Your task to perform on an android device: Search for logitech g933 on walmart.com, select the first entry, and add it to the cart. Image 0: 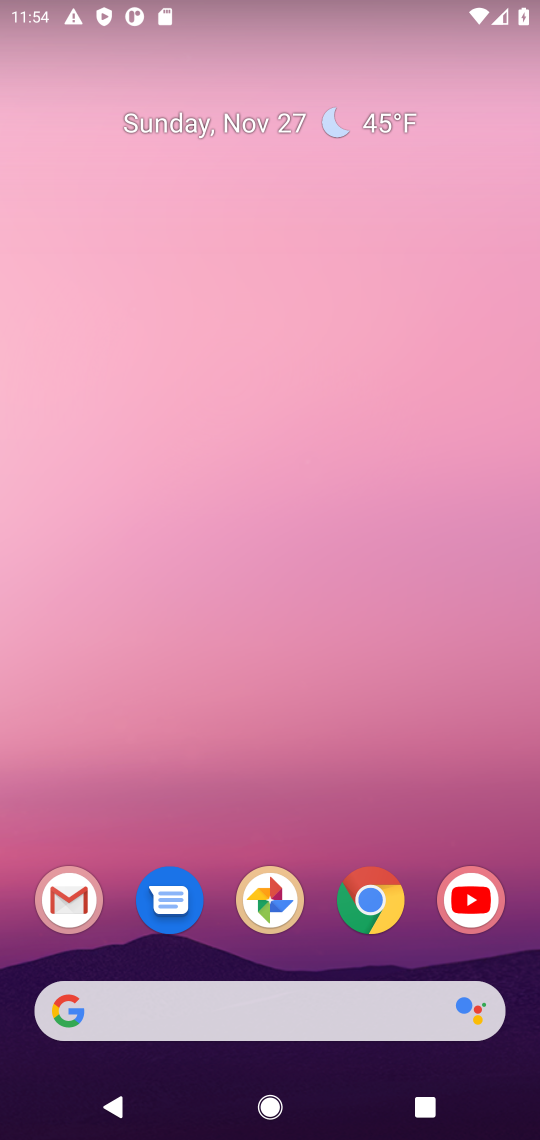
Step 0: click (377, 890)
Your task to perform on an android device: Search for logitech g933 on walmart.com, select the first entry, and add it to the cart. Image 1: 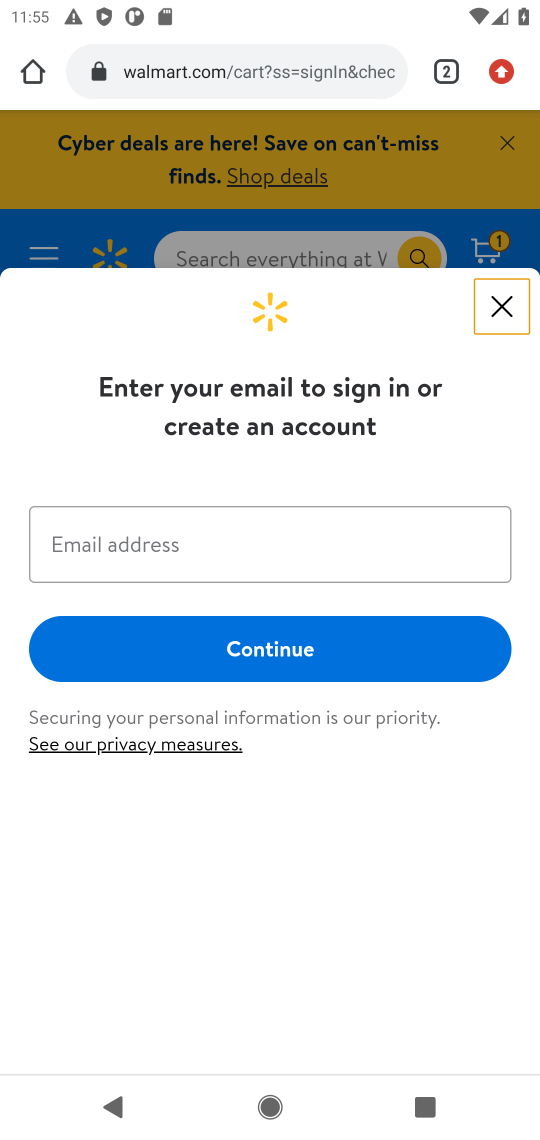
Step 1: click (501, 310)
Your task to perform on an android device: Search for logitech g933 on walmart.com, select the first entry, and add it to the cart. Image 2: 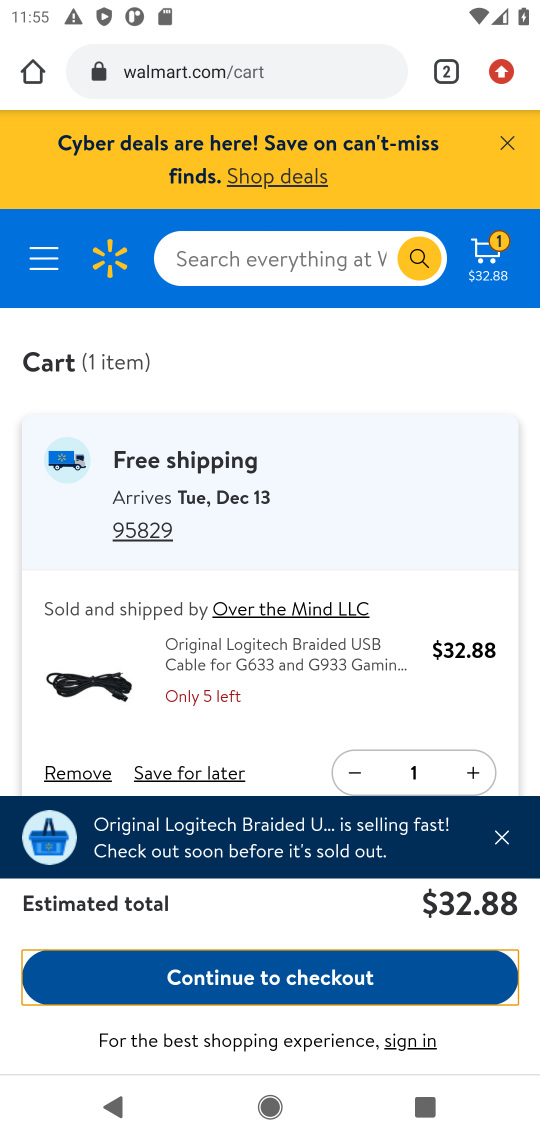
Step 2: click (308, 248)
Your task to perform on an android device: Search for logitech g933 on walmart.com, select the first entry, and add it to the cart. Image 3: 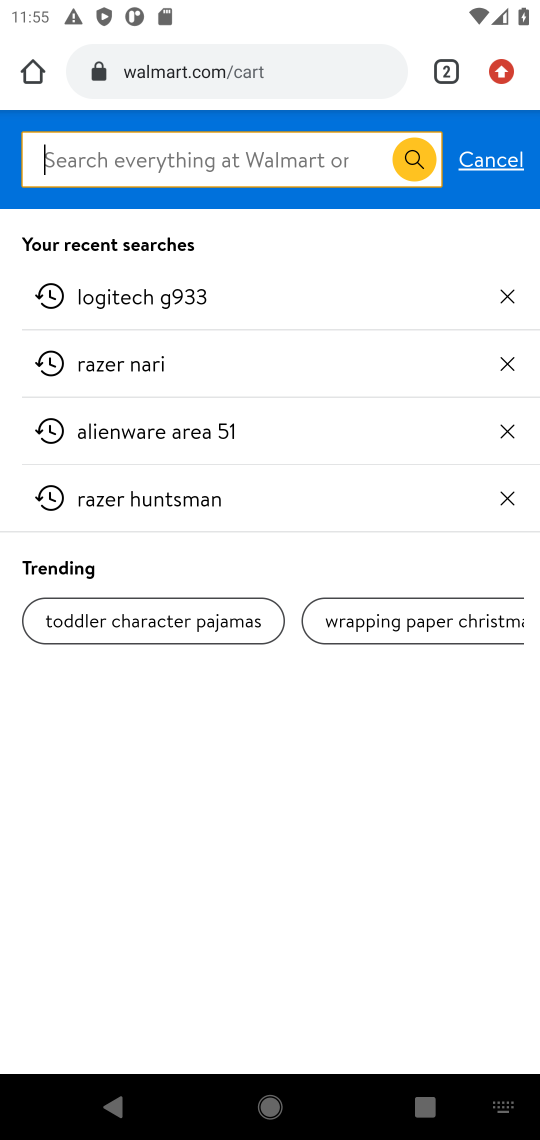
Step 3: click (180, 299)
Your task to perform on an android device: Search for logitech g933 on walmart.com, select the first entry, and add it to the cart. Image 4: 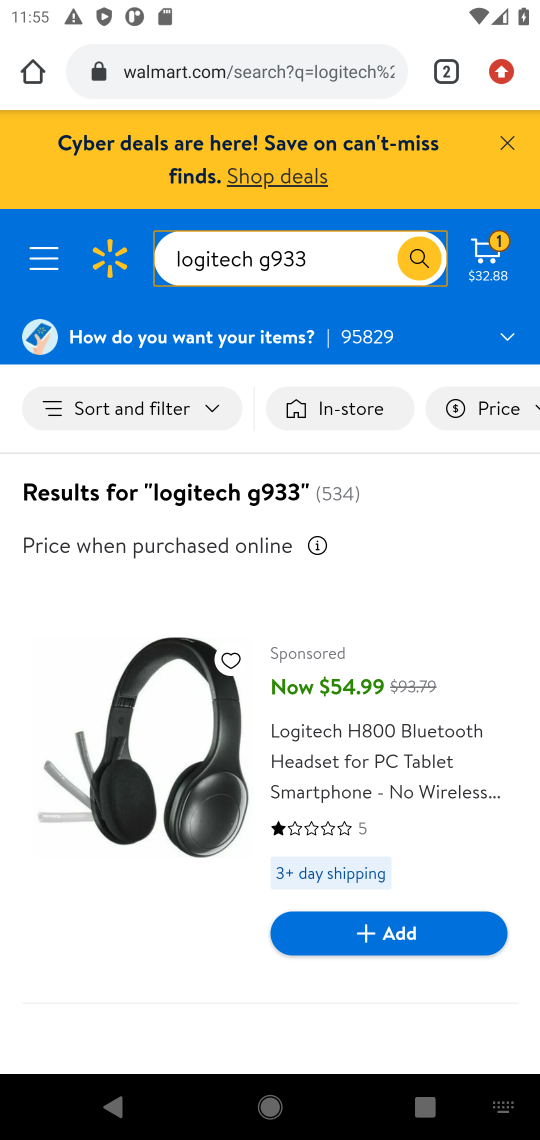
Step 4: task complete